Your task to perform on an android device: Search for sushi restaurants on Maps Image 0: 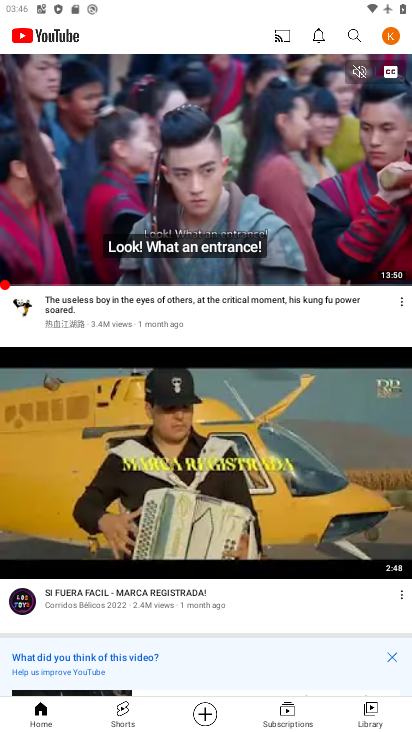
Step 0: press home button
Your task to perform on an android device: Search for sushi restaurants on Maps Image 1: 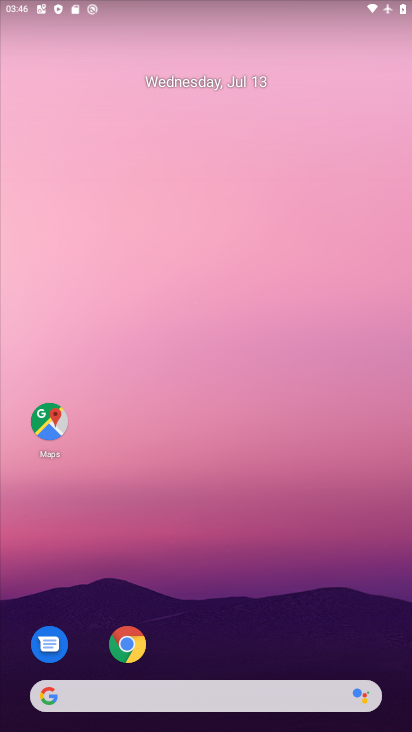
Step 1: drag from (284, 559) to (372, 70)
Your task to perform on an android device: Search for sushi restaurants on Maps Image 2: 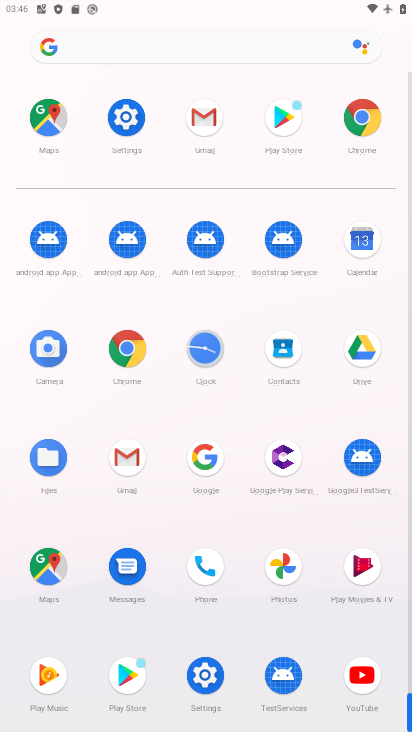
Step 2: click (50, 138)
Your task to perform on an android device: Search for sushi restaurants on Maps Image 3: 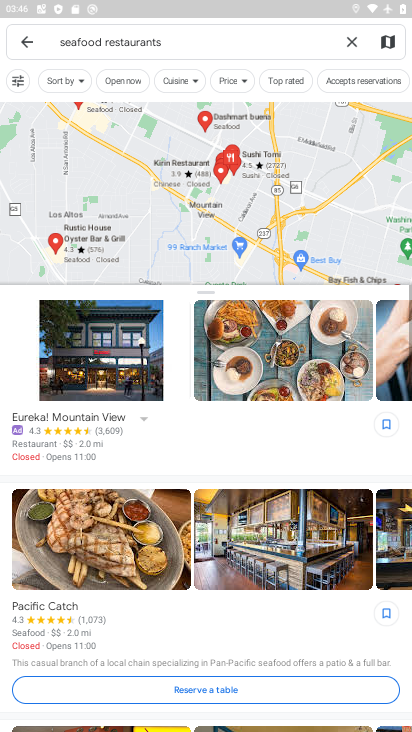
Step 3: click (192, 36)
Your task to perform on an android device: Search for sushi restaurants on Maps Image 4: 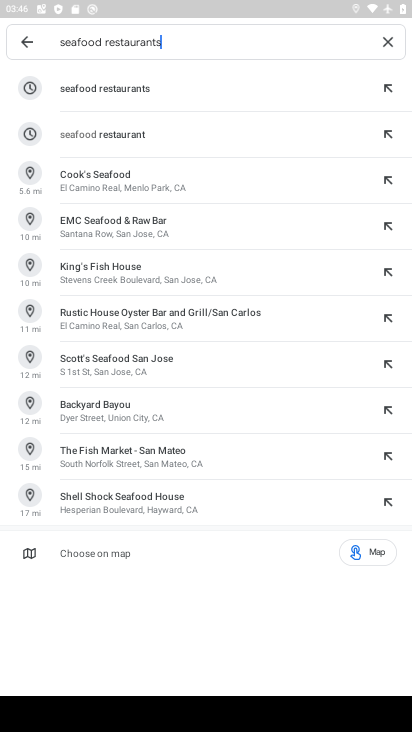
Step 4: click (386, 43)
Your task to perform on an android device: Search for sushi restaurants on Maps Image 5: 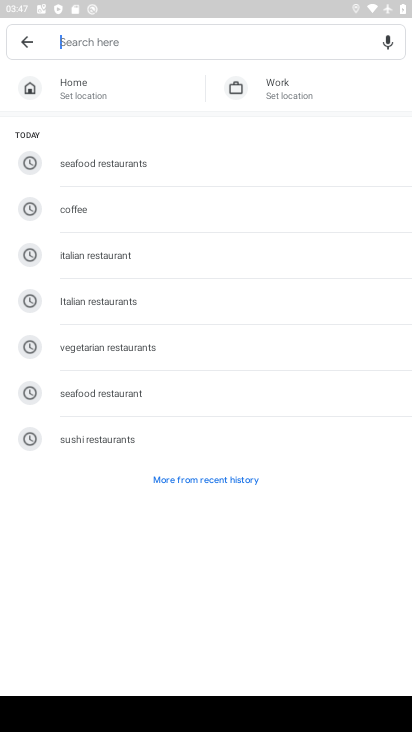
Step 5: type "sushi restaurants"
Your task to perform on an android device: Search for sushi restaurants on Maps Image 6: 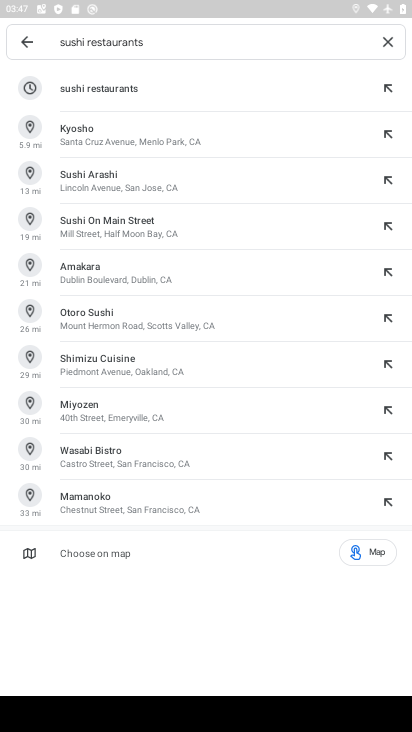
Step 6: click (127, 83)
Your task to perform on an android device: Search for sushi restaurants on Maps Image 7: 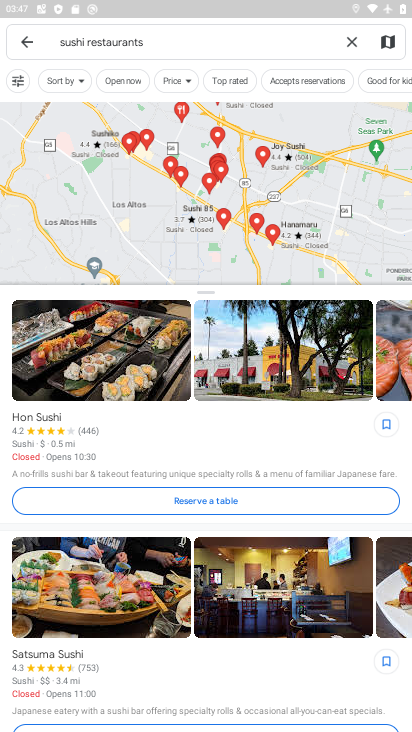
Step 7: task complete